Your task to perform on an android device: Go to Google maps Image 0: 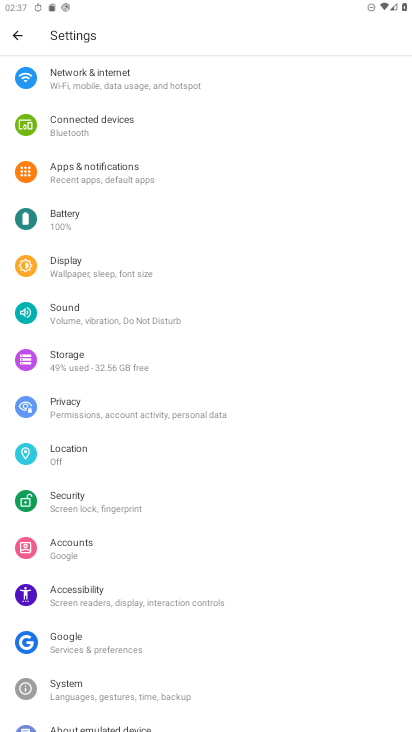
Step 0: press home button
Your task to perform on an android device: Go to Google maps Image 1: 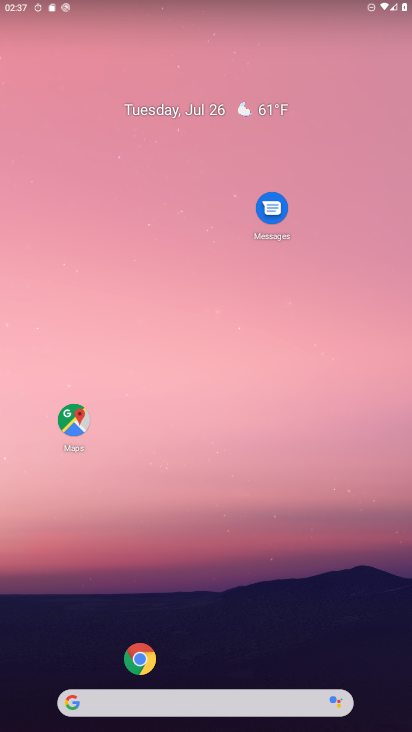
Step 1: click (61, 424)
Your task to perform on an android device: Go to Google maps Image 2: 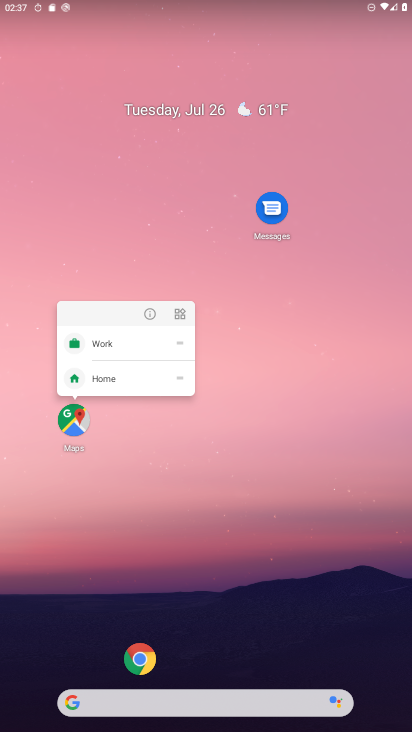
Step 2: click (70, 412)
Your task to perform on an android device: Go to Google maps Image 3: 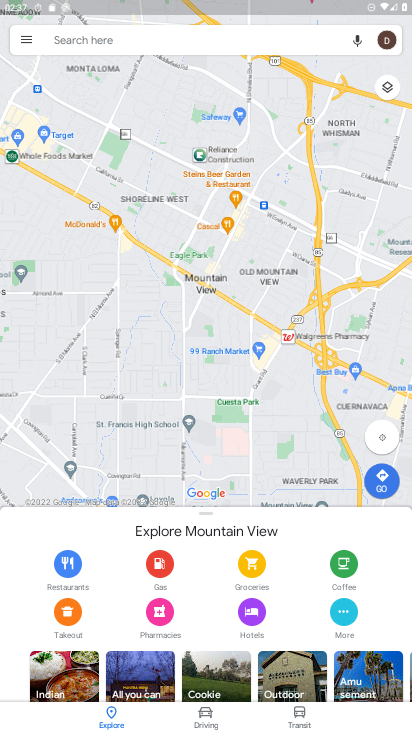
Step 3: task complete